Your task to perform on an android device: Open calendar and show me the fourth week of next month Image 0: 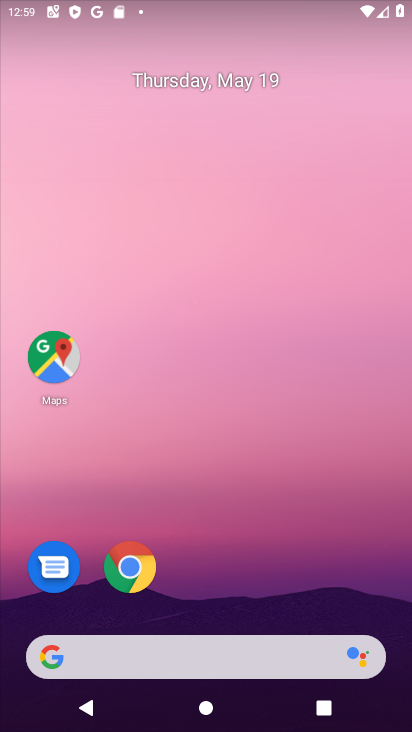
Step 0: drag from (301, 393) to (269, 140)
Your task to perform on an android device: Open calendar and show me the fourth week of next month Image 1: 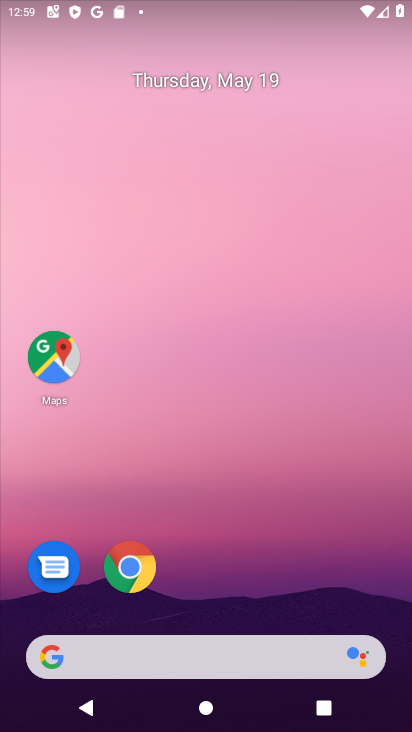
Step 1: drag from (268, 557) to (322, 51)
Your task to perform on an android device: Open calendar and show me the fourth week of next month Image 2: 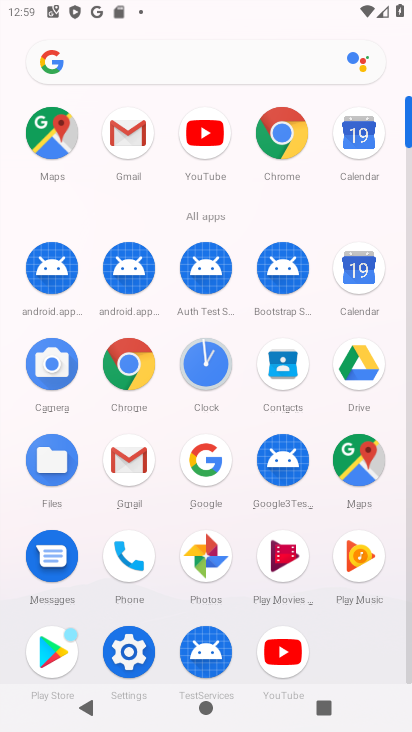
Step 2: click (360, 269)
Your task to perform on an android device: Open calendar and show me the fourth week of next month Image 3: 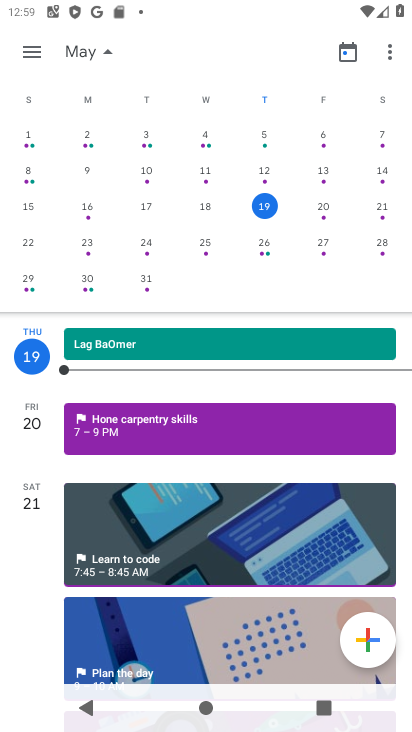
Step 3: drag from (372, 241) to (12, 203)
Your task to perform on an android device: Open calendar and show me the fourth week of next month Image 4: 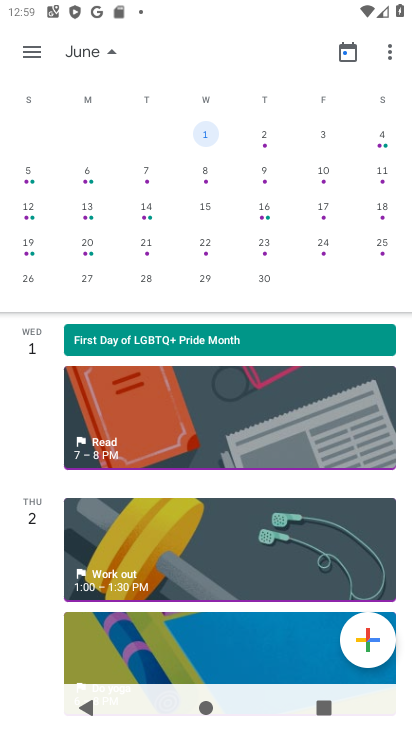
Step 4: click (154, 281)
Your task to perform on an android device: Open calendar and show me the fourth week of next month Image 5: 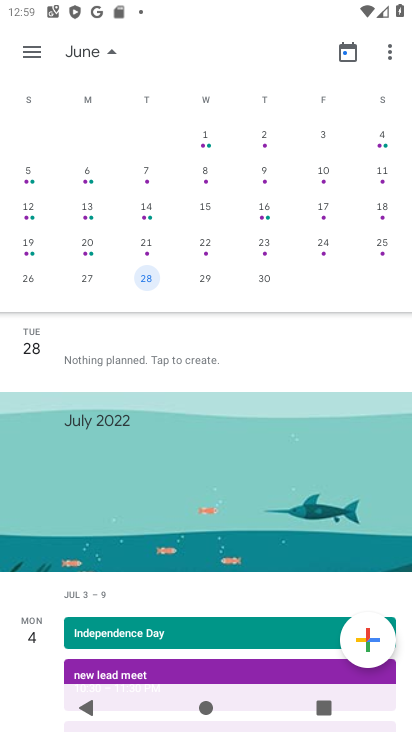
Step 5: task complete